Your task to perform on an android device: Open sound settings Image 0: 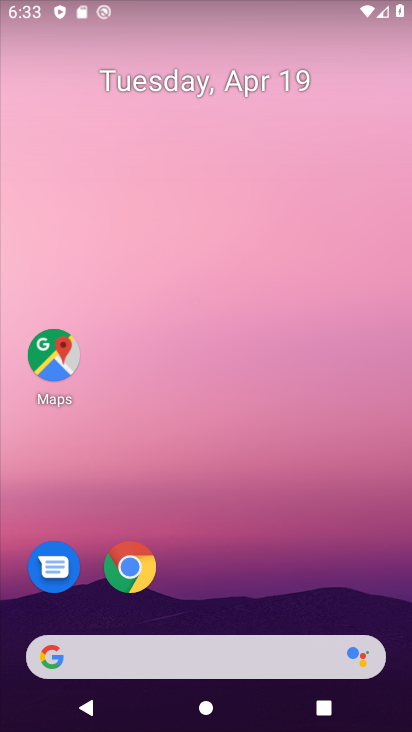
Step 0: drag from (266, 612) to (208, 43)
Your task to perform on an android device: Open sound settings Image 1: 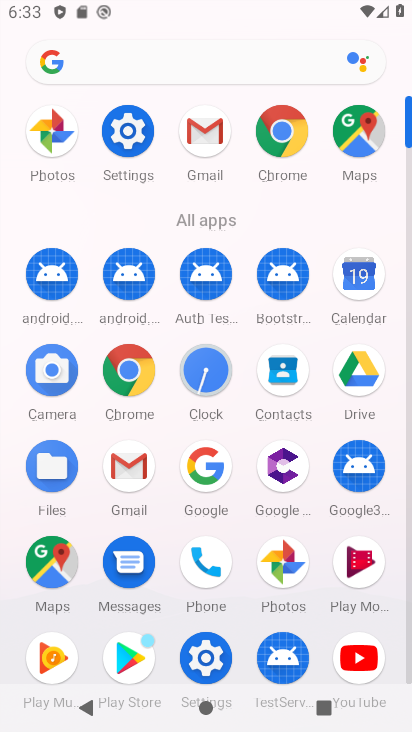
Step 1: click (140, 114)
Your task to perform on an android device: Open sound settings Image 2: 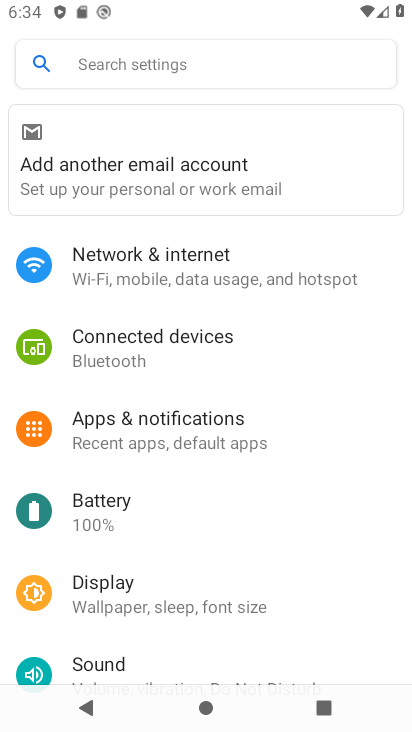
Step 2: click (302, 667)
Your task to perform on an android device: Open sound settings Image 3: 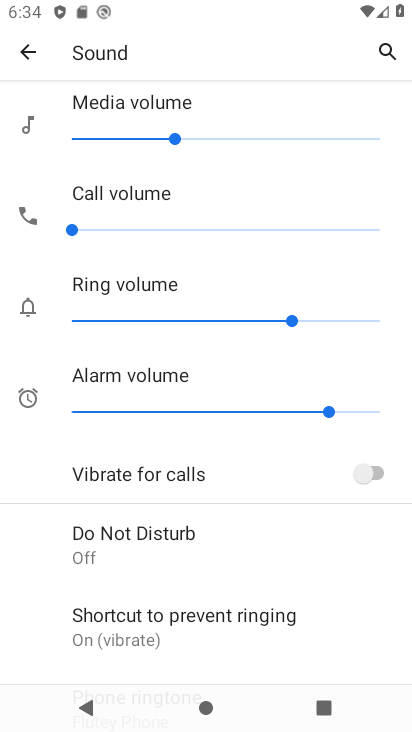
Step 3: task complete